Your task to perform on an android device: Clear the shopping cart on ebay. Search for dell alienware on ebay, select the first entry, add it to the cart, then select checkout. Image 0: 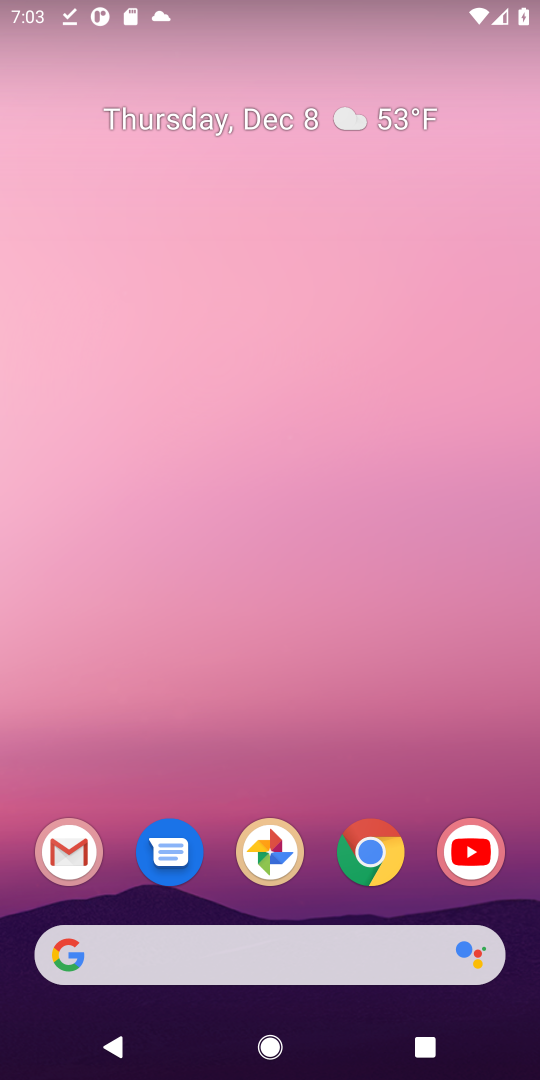
Step 0: click (135, 977)
Your task to perform on an android device: Clear the shopping cart on ebay. Search for dell alienware on ebay, select the first entry, add it to the cart, then select checkout. Image 1: 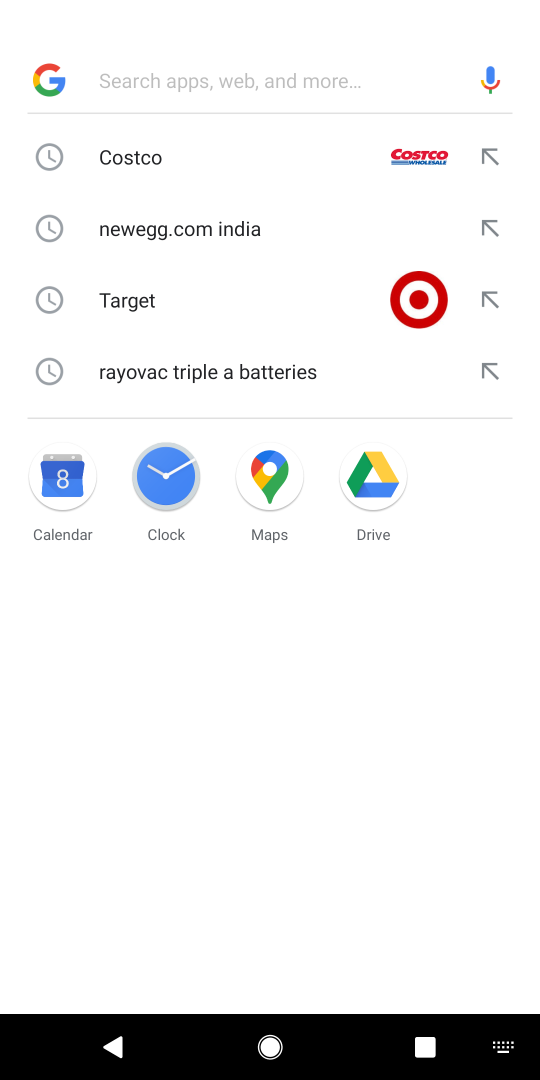
Step 1: type "eday"
Your task to perform on an android device: Clear the shopping cart on ebay. Search for dell alienware on ebay, select the first entry, add it to the cart, then select checkout. Image 2: 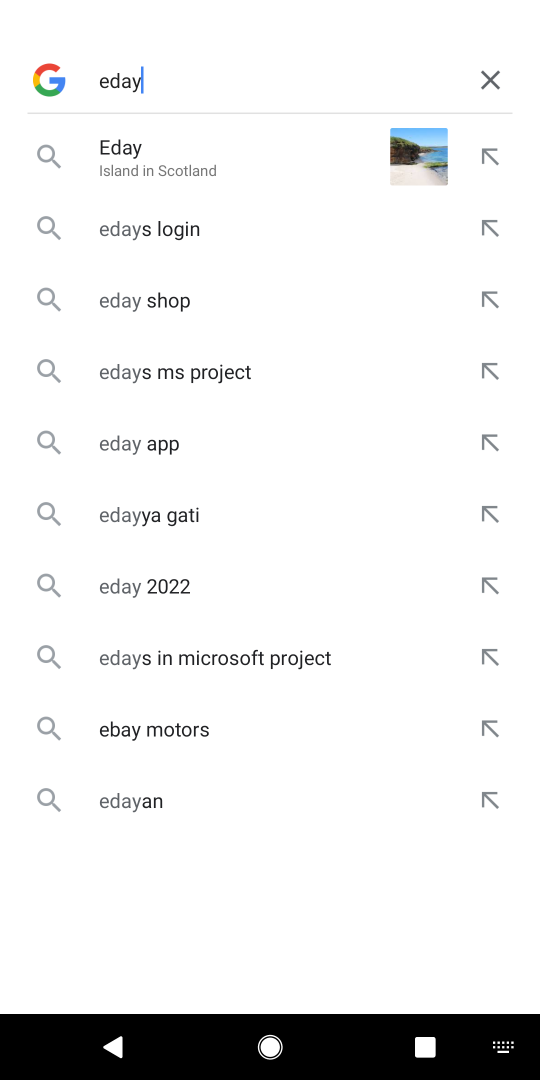
Step 2: click (144, 152)
Your task to perform on an android device: Clear the shopping cart on ebay. Search for dell alienware on ebay, select the first entry, add it to the cart, then select checkout. Image 3: 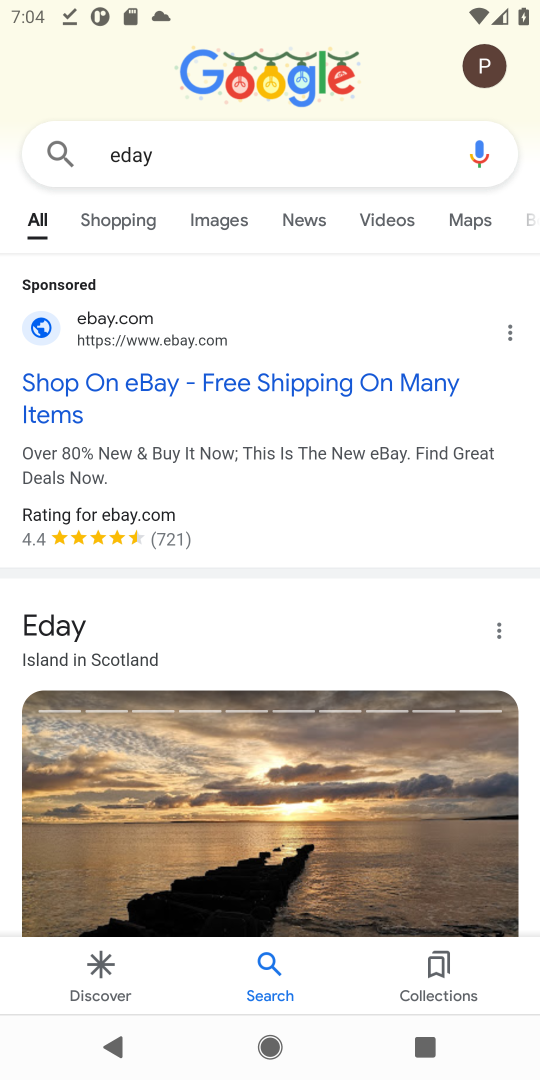
Step 3: click (144, 385)
Your task to perform on an android device: Clear the shopping cart on ebay. Search for dell alienware on ebay, select the first entry, add it to the cart, then select checkout. Image 4: 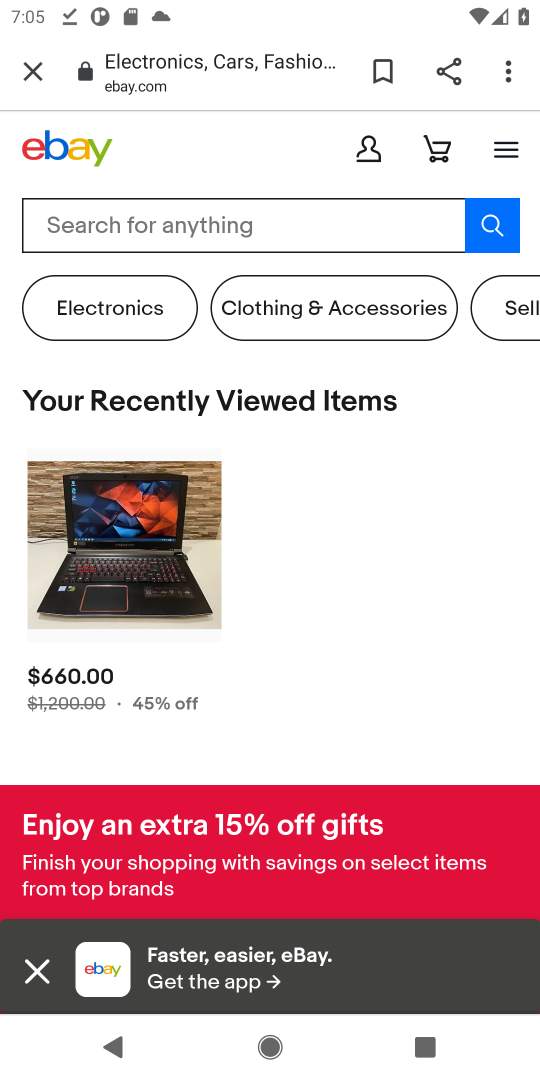
Step 4: task complete